Your task to perform on an android device: change your default location settings in chrome Image 0: 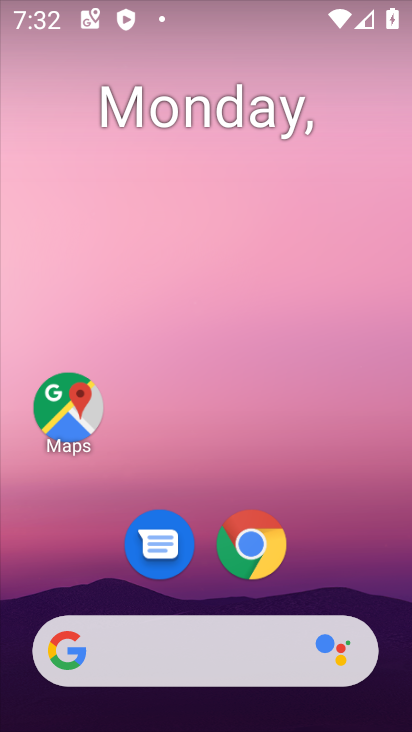
Step 0: click (258, 552)
Your task to perform on an android device: change your default location settings in chrome Image 1: 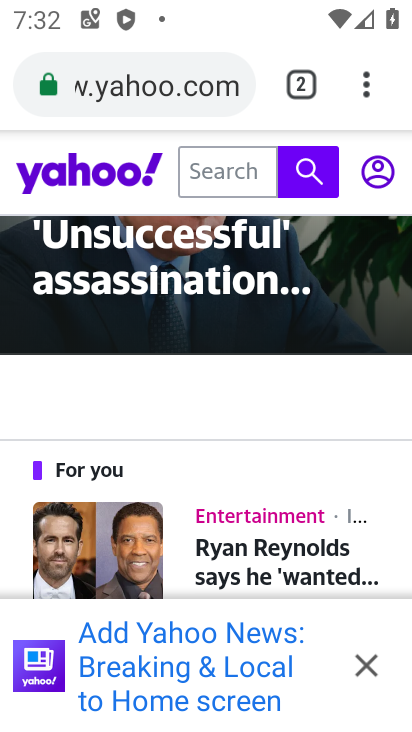
Step 1: click (365, 85)
Your task to perform on an android device: change your default location settings in chrome Image 2: 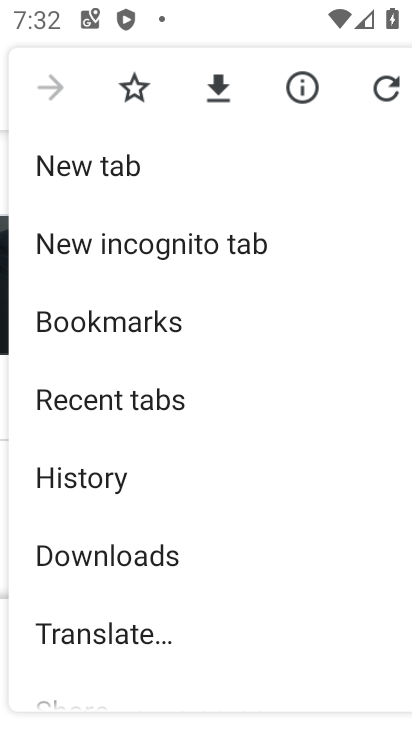
Step 2: drag from (261, 572) to (249, 206)
Your task to perform on an android device: change your default location settings in chrome Image 3: 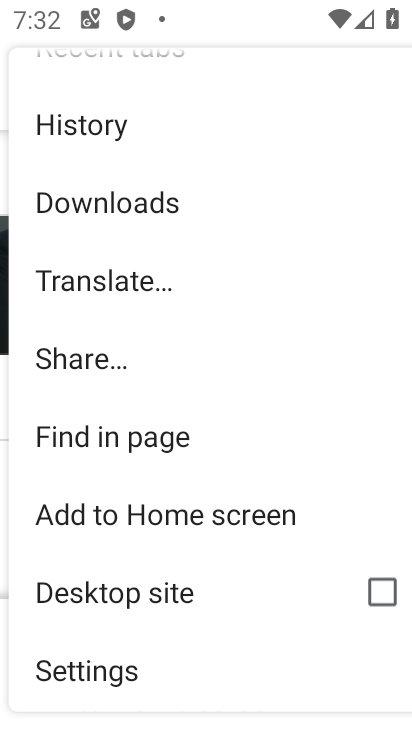
Step 3: drag from (231, 615) to (233, 347)
Your task to perform on an android device: change your default location settings in chrome Image 4: 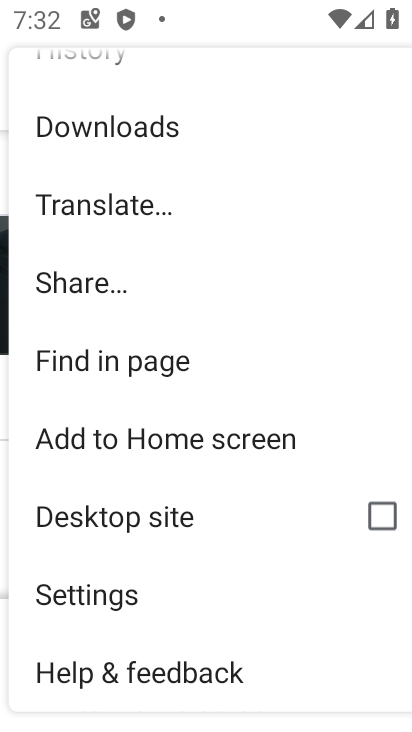
Step 4: click (98, 587)
Your task to perform on an android device: change your default location settings in chrome Image 5: 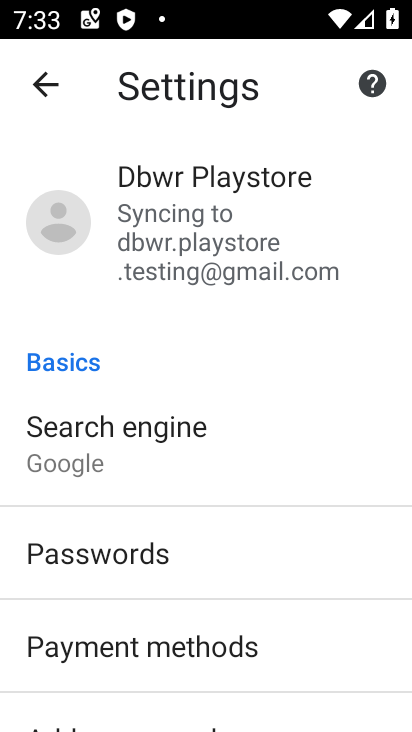
Step 5: drag from (234, 500) to (218, 178)
Your task to perform on an android device: change your default location settings in chrome Image 6: 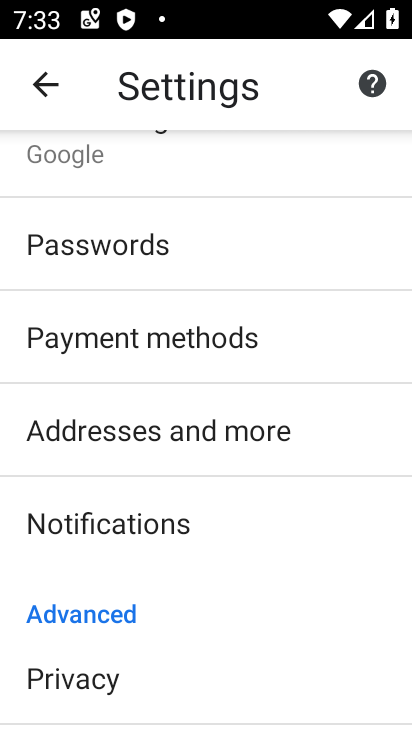
Step 6: drag from (198, 537) to (195, 247)
Your task to perform on an android device: change your default location settings in chrome Image 7: 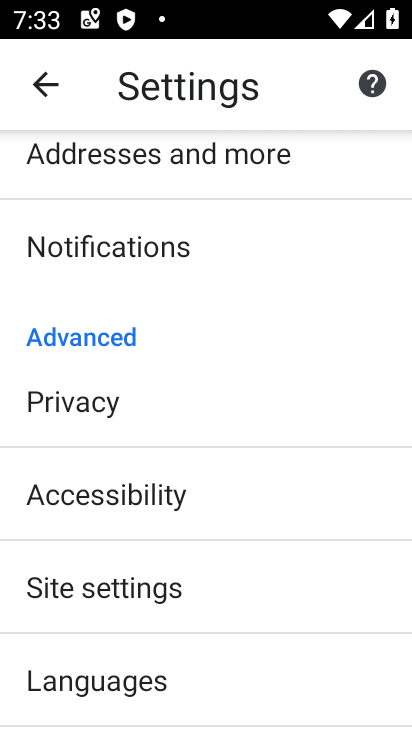
Step 7: click (107, 580)
Your task to perform on an android device: change your default location settings in chrome Image 8: 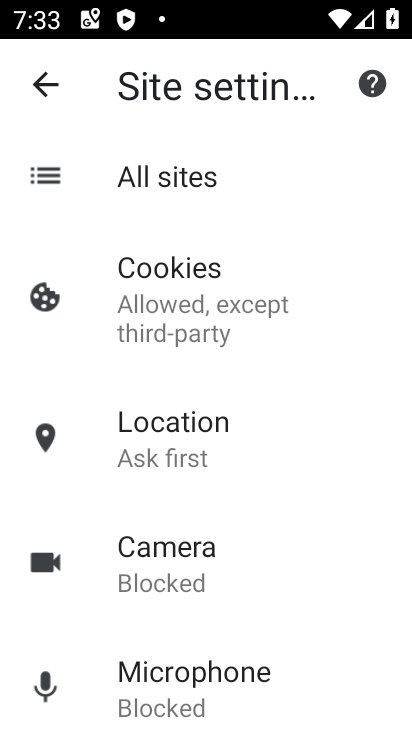
Step 8: click (130, 435)
Your task to perform on an android device: change your default location settings in chrome Image 9: 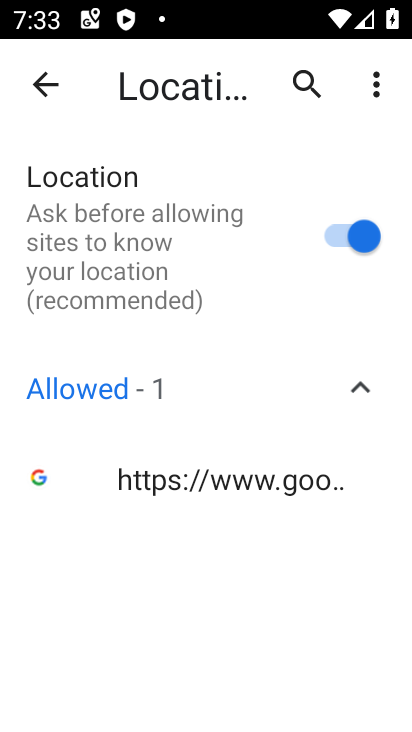
Step 9: click (336, 239)
Your task to perform on an android device: change your default location settings in chrome Image 10: 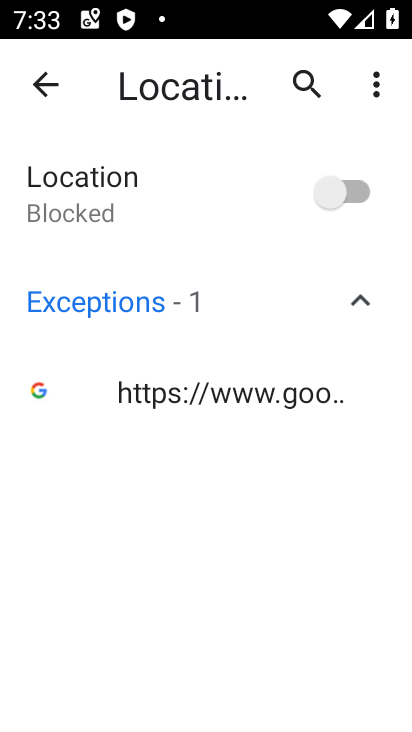
Step 10: task complete